Your task to perform on an android device: choose inbox layout in the gmail app Image 0: 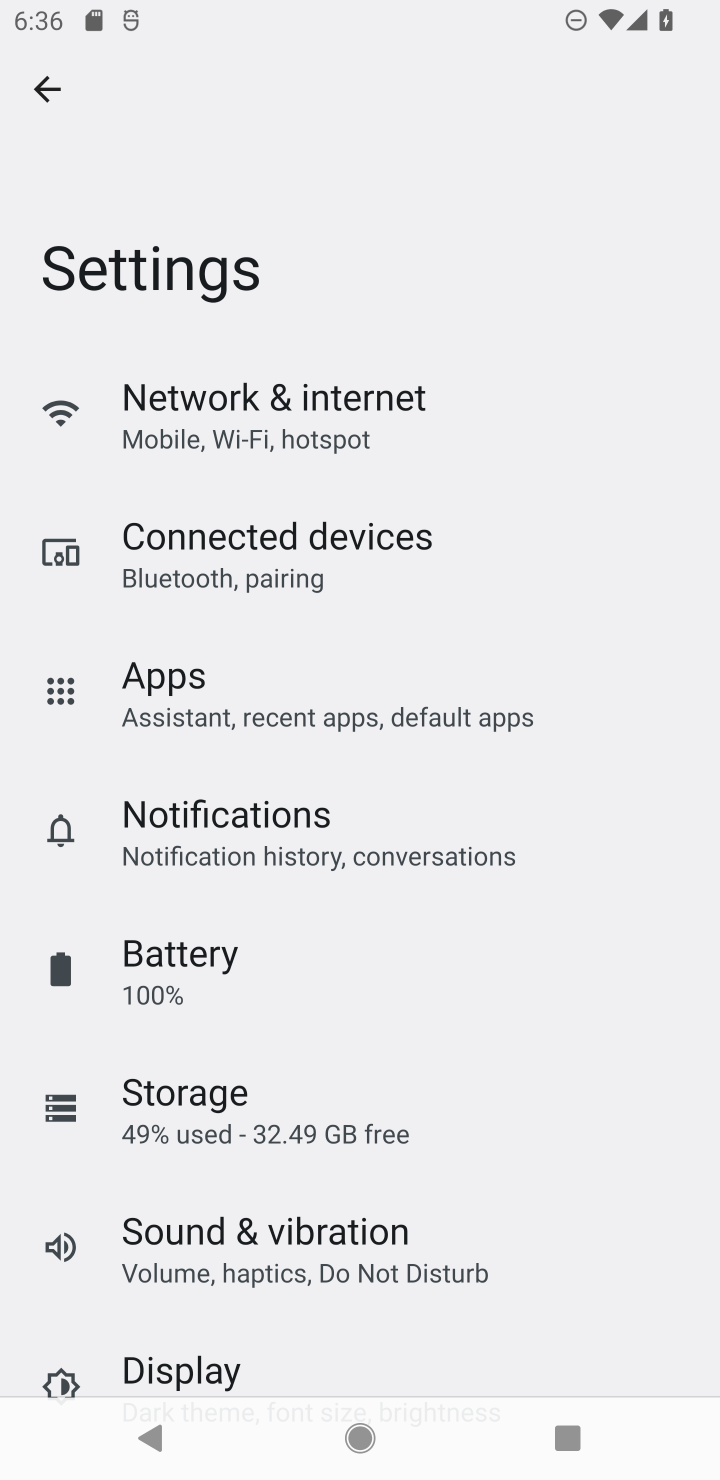
Step 0: press home button
Your task to perform on an android device: choose inbox layout in the gmail app Image 1: 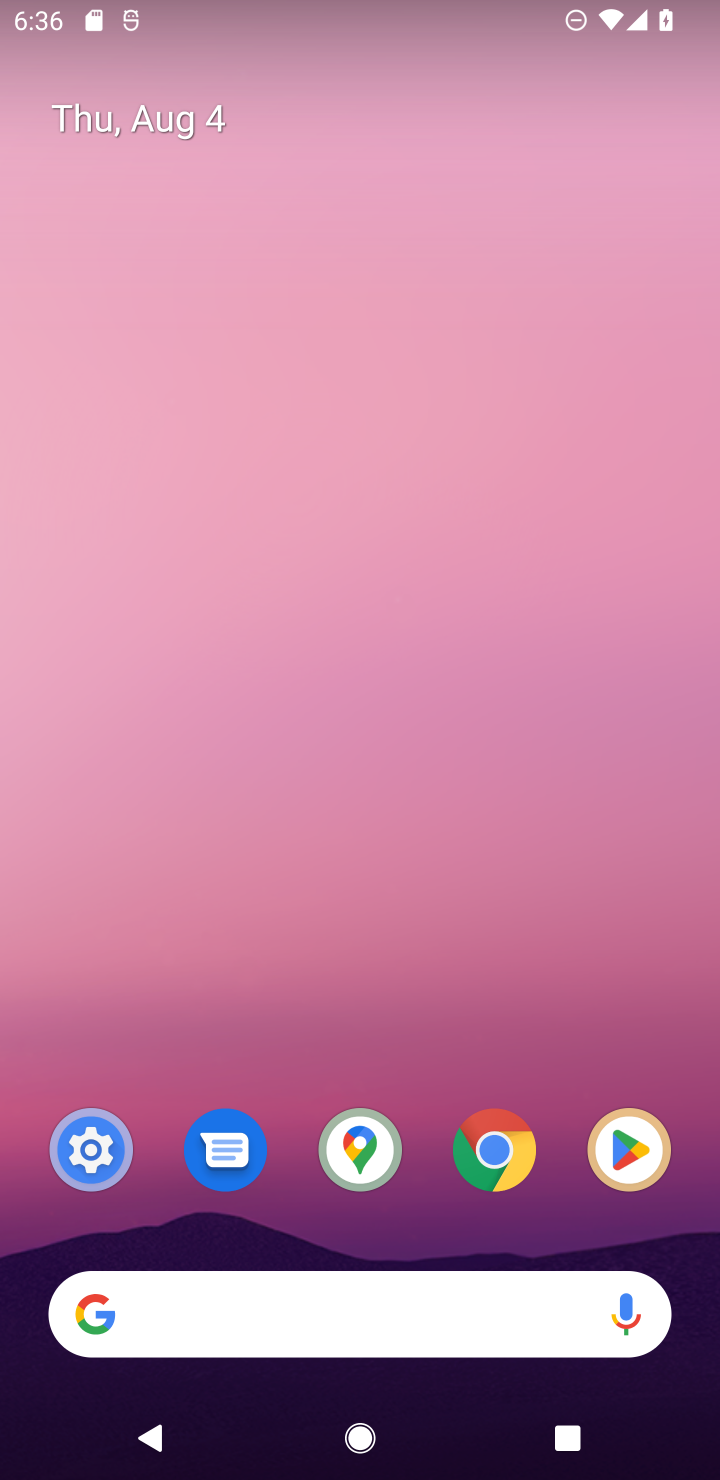
Step 1: drag from (454, 1270) to (488, 28)
Your task to perform on an android device: choose inbox layout in the gmail app Image 2: 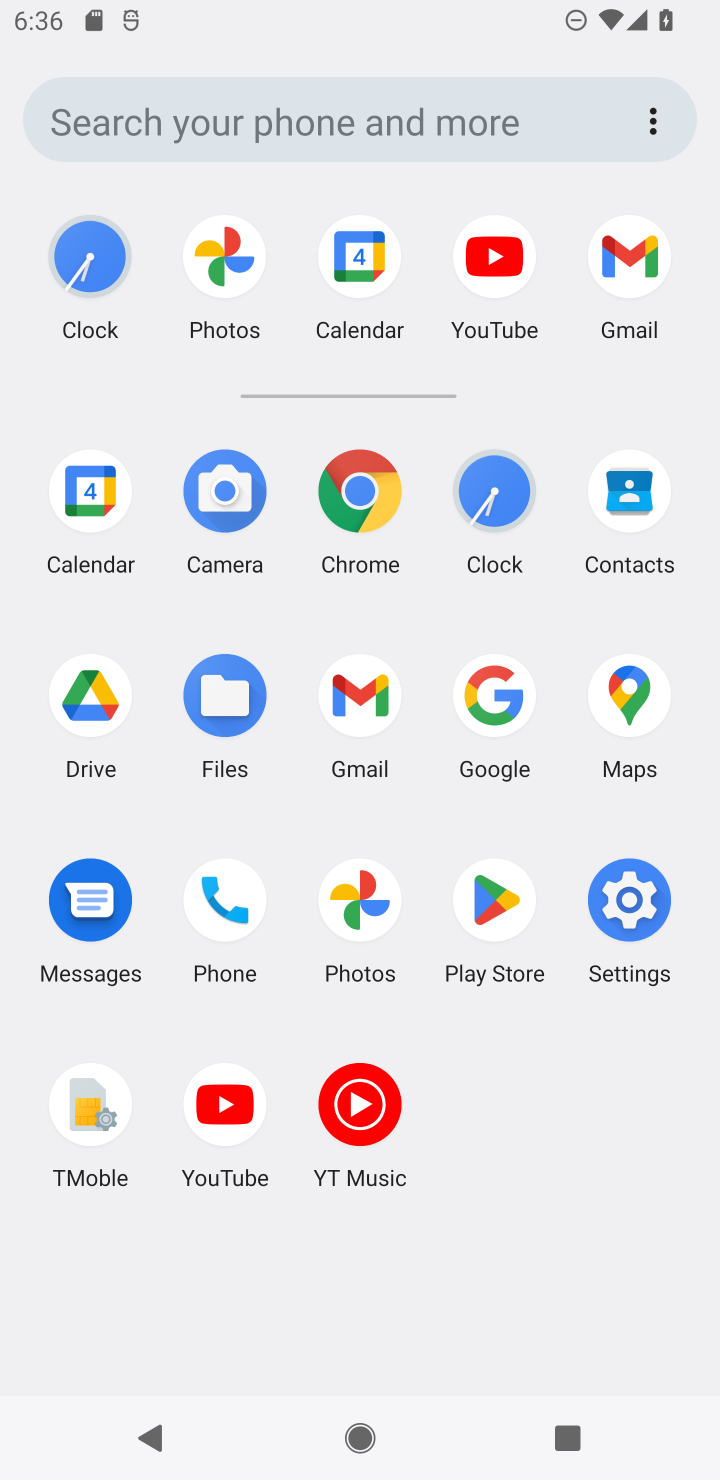
Step 2: click (385, 699)
Your task to perform on an android device: choose inbox layout in the gmail app Image 3: 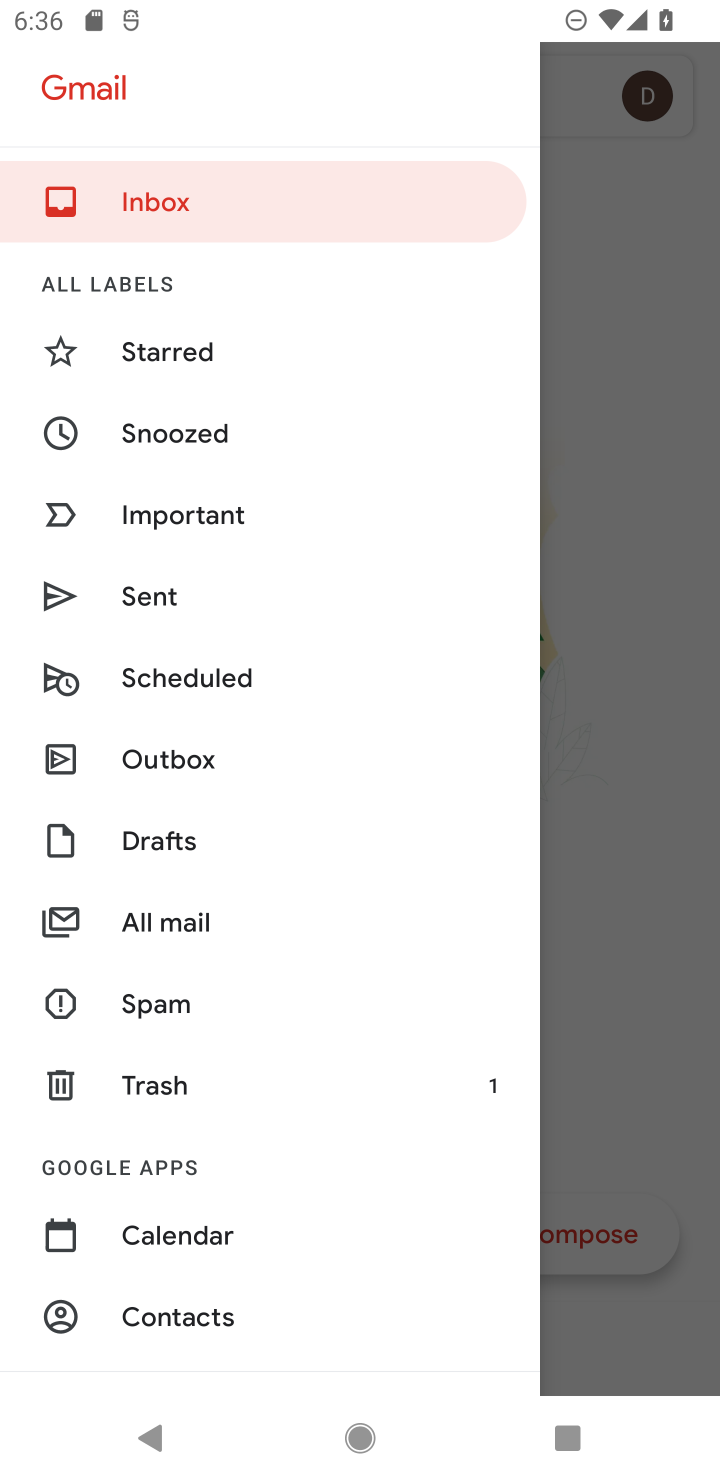
Step 3: drag from (216, 1263) to (302, 216)
Your task to perform on an android device: choose inbox layout in the gmail app Image 4: 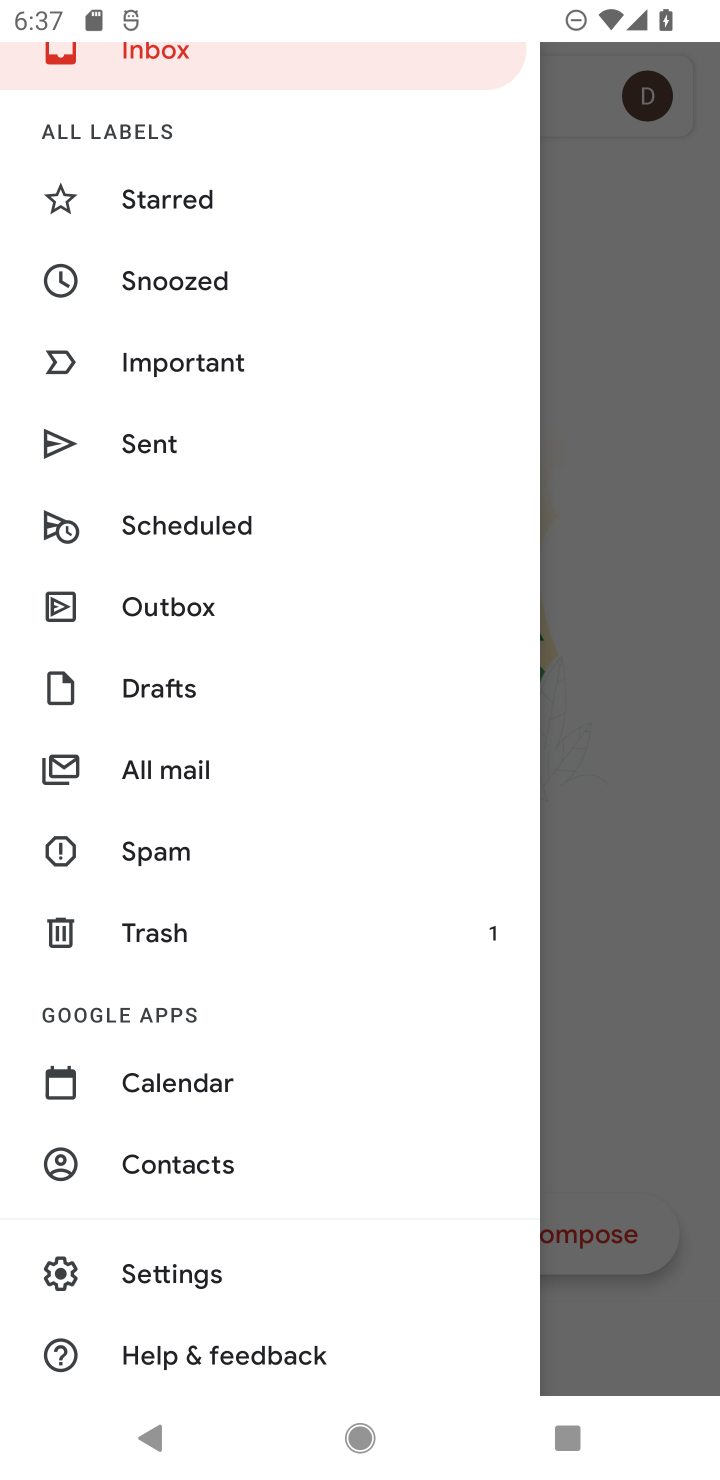
Step 4: click (196, 1265)
Your task to perform on an android device: choose inbox layout in the gmail app Image 5: 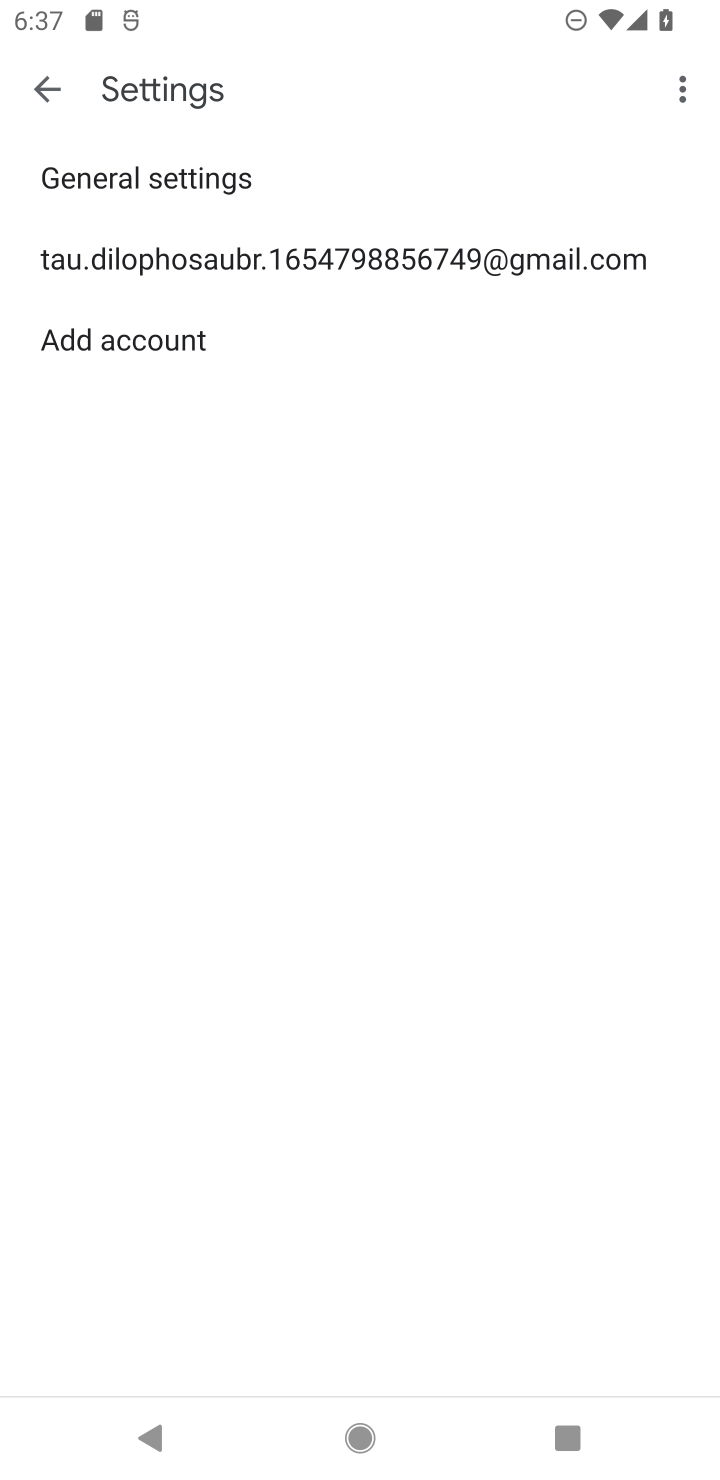
Step 5: click (172, 267)
Your task to perform on an android device: choose inbox layout in the gmail app Image 6: 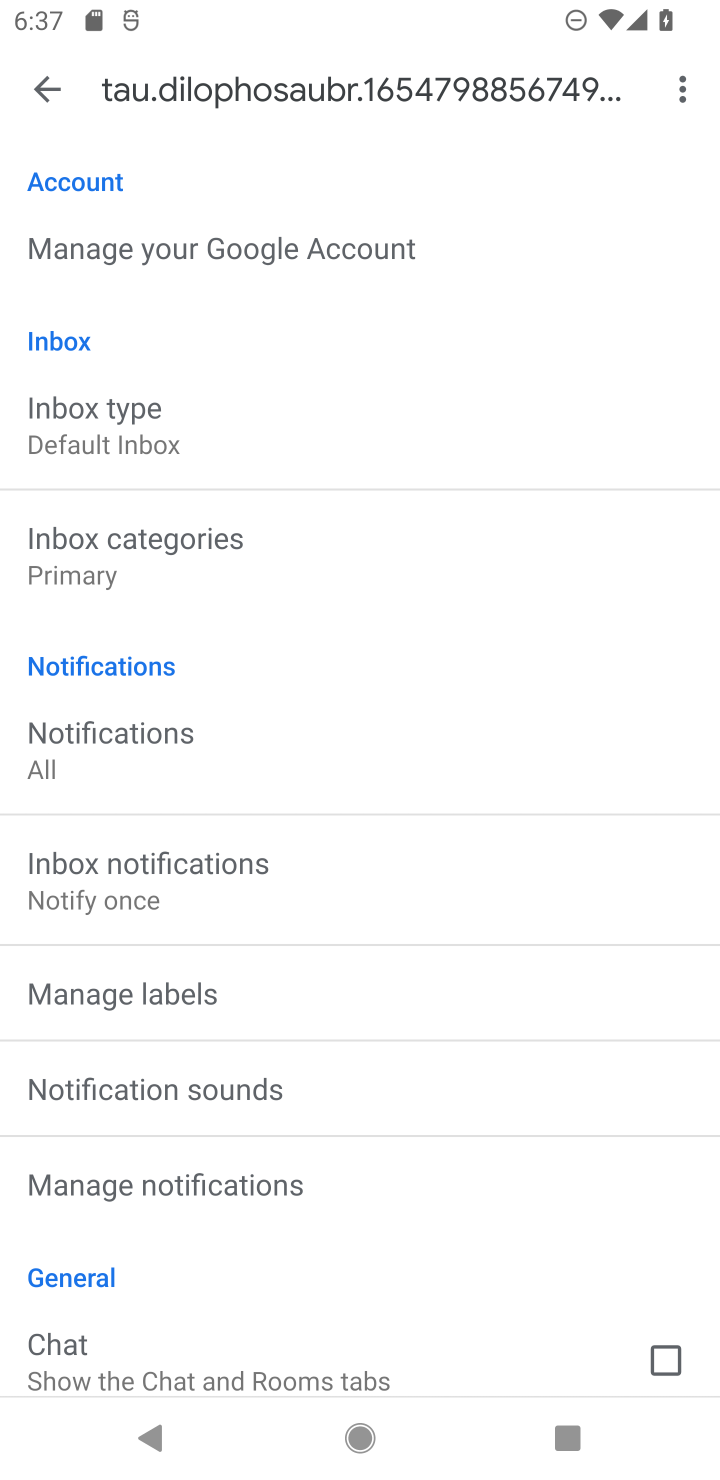
Step 6: click (182, 442)
Your task to perform on an android device: choose inbox layout in the gmail app Image 7: 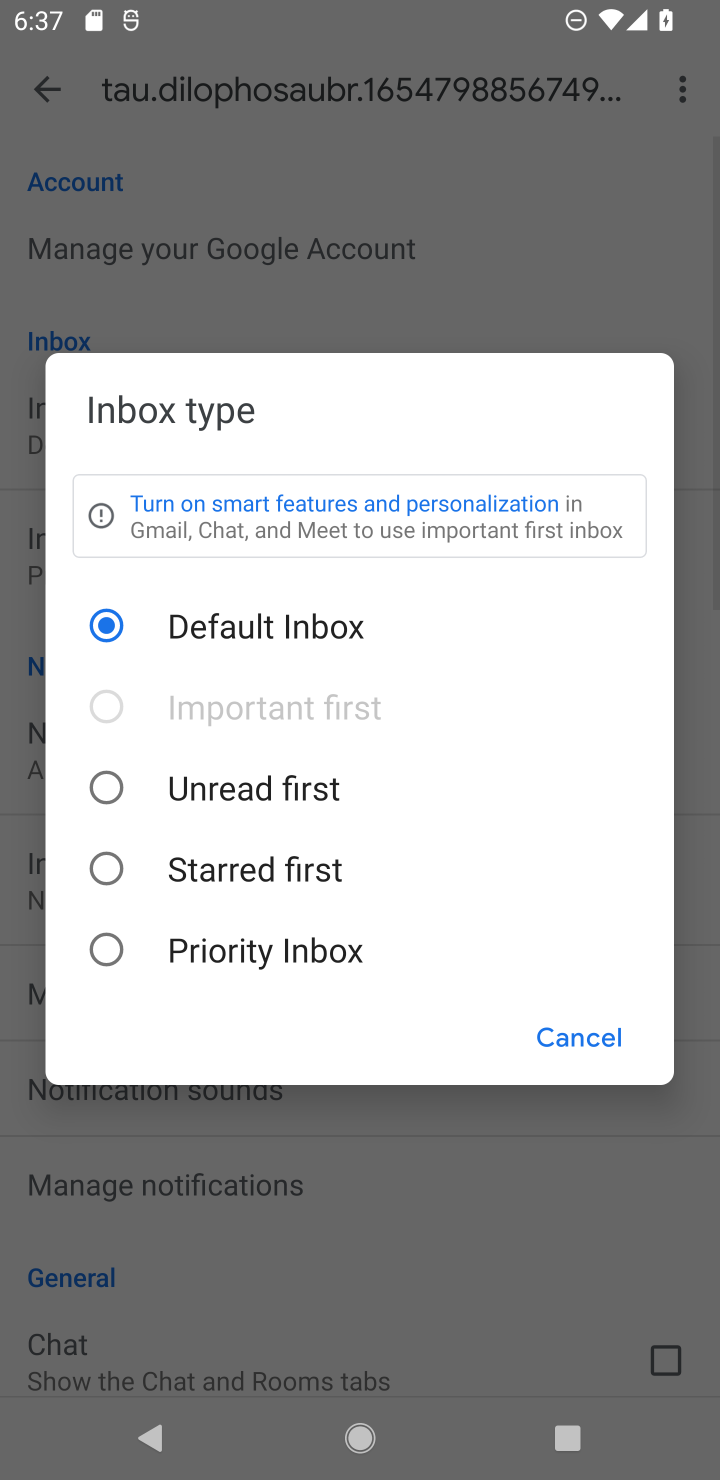
Step 7: click (106, 948)
Your task to perform on an android device: choose inbox layout in the gmail app Image 8: 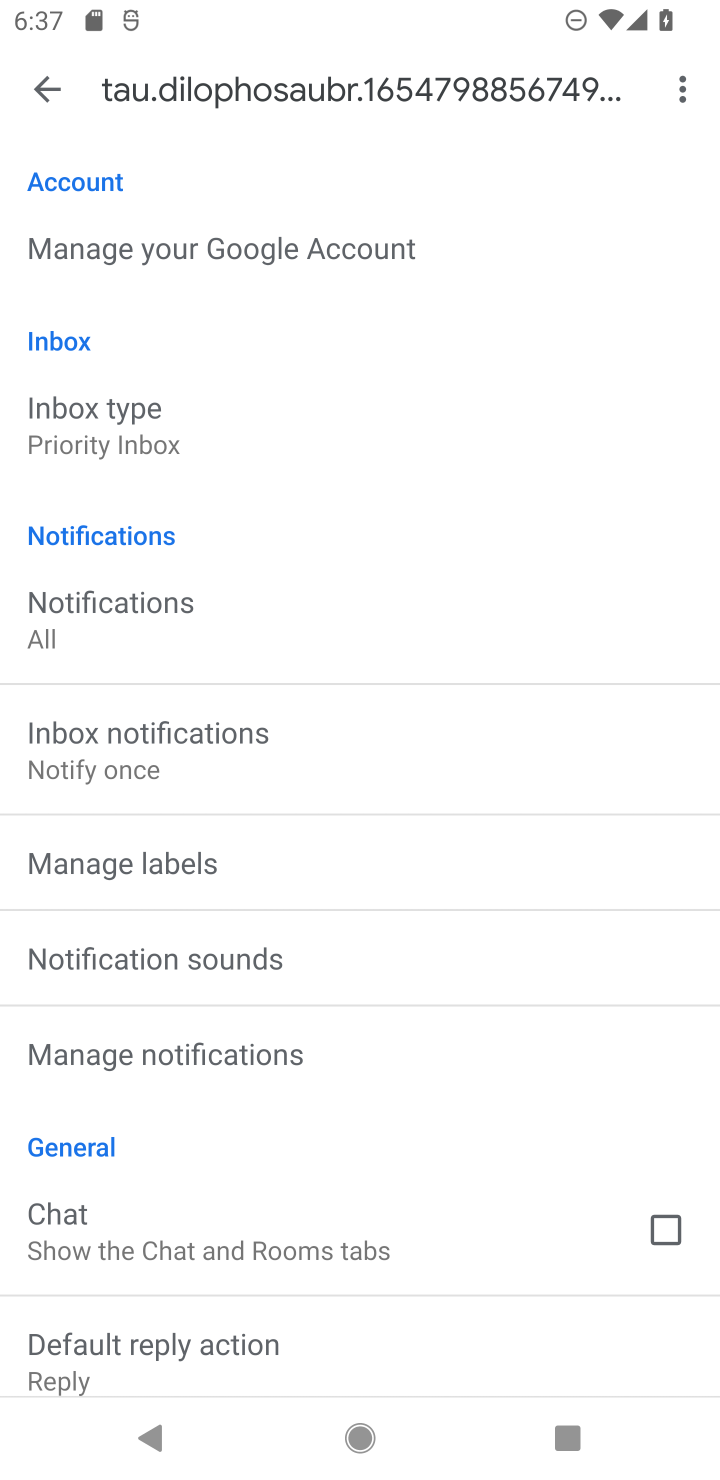
Step 8: task complete